Your task to perform on an android device: set the stopwatch Image 0: 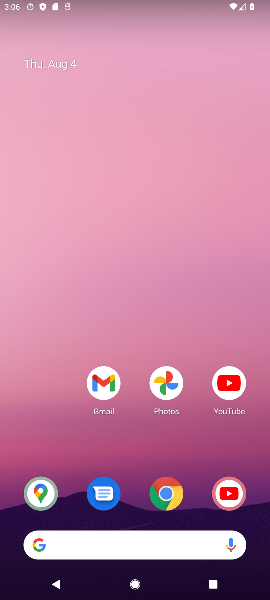
Step 0: click (196, 187)
Your task to perform on an android device: set the stopwatch Image 1: 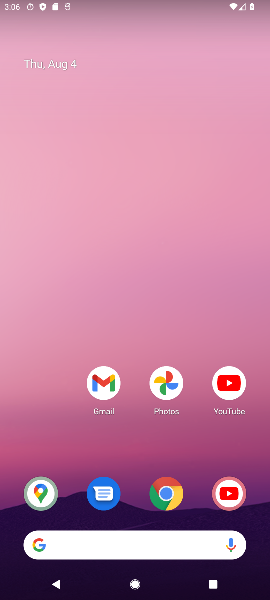
Step 1: drag from (35, 561) to (140, 202)
Your task to perform on an android device: set the stopwatch Image 2: 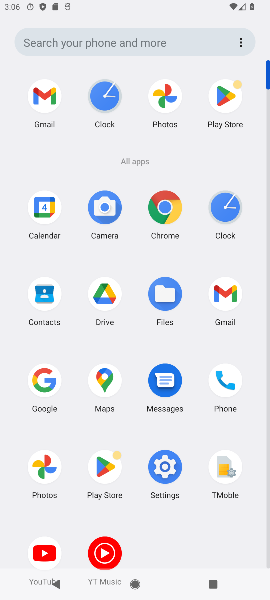
Step 2: click (225, 206)
Your task to perform on an android device: set the stopwatch Image 3: 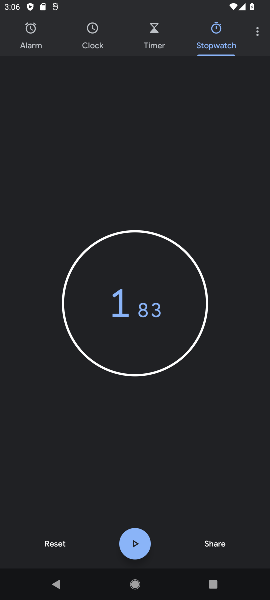
Step 3: task complete